Your task to perform on an android device: open device folders in google photos Image 0: 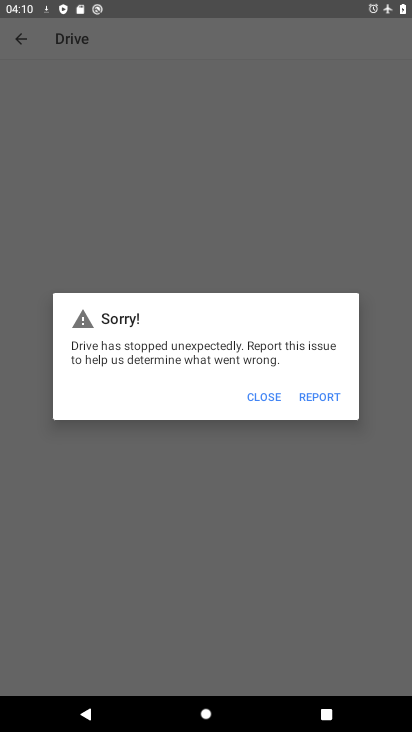
Step 0: press home button
Your task to perform on an android device: open device folders in google photos Image 1: 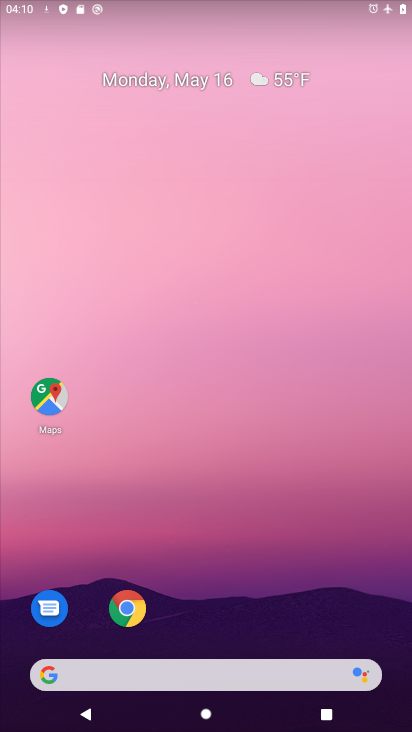
Step 1: drag from (223, 622) to (238, 247)
Your task to perform on an android device: open device folders in google photos Image 2: 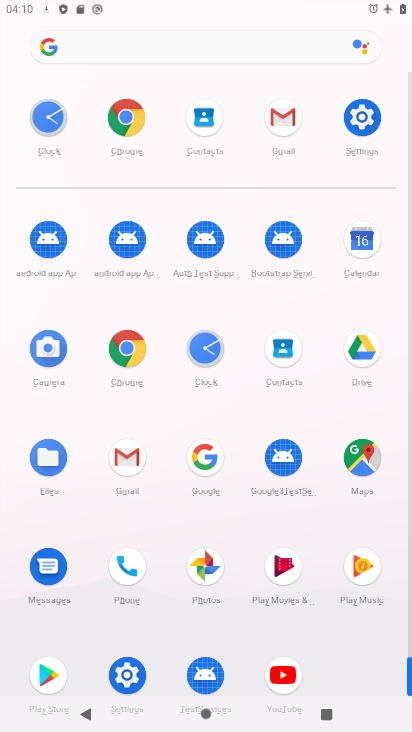
Step 2: click (208, 574)
Your task to perform on an android device: open device folders in google photos Image 3: 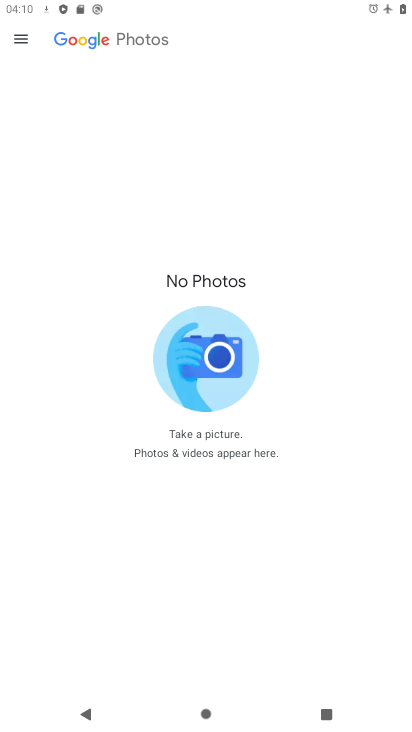
Step 3: click (21, 41)
Your task to perform on an android device: open device folders in google photos Image 4: 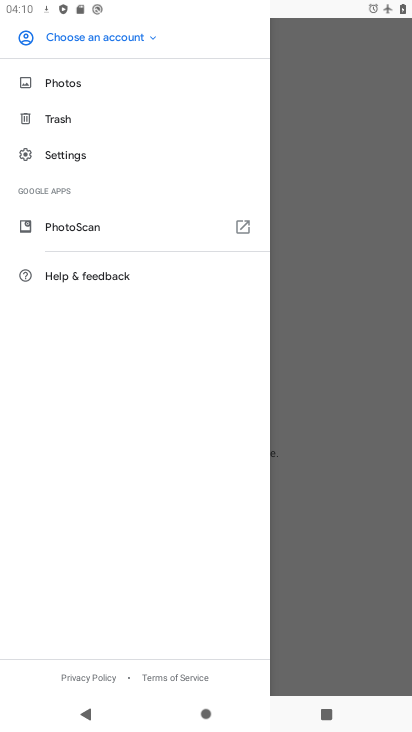
Step 4: click (338, 203)
Your task to perform on an android device: open device folders in google photos Image 5: 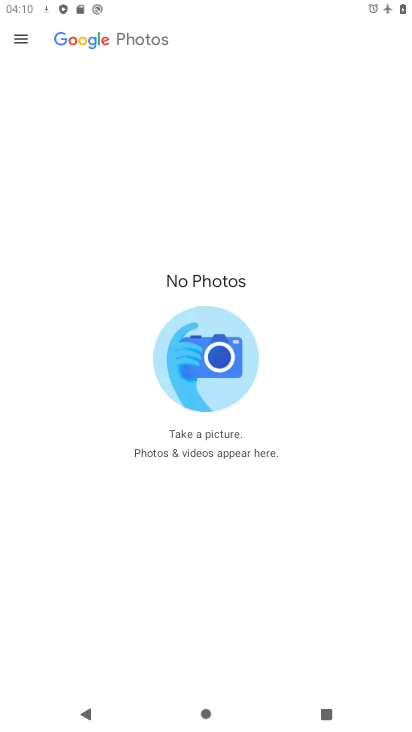
Step 5: task complete